Your task to perform on an android device: see sites visited before in the chrome app Image 0: 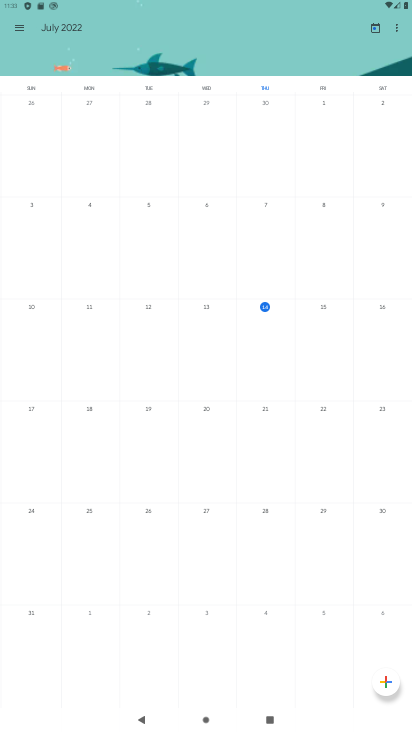
Step 0: press home button
Your task to perform on an android device: see sites visited before in the chrome app Image 1: 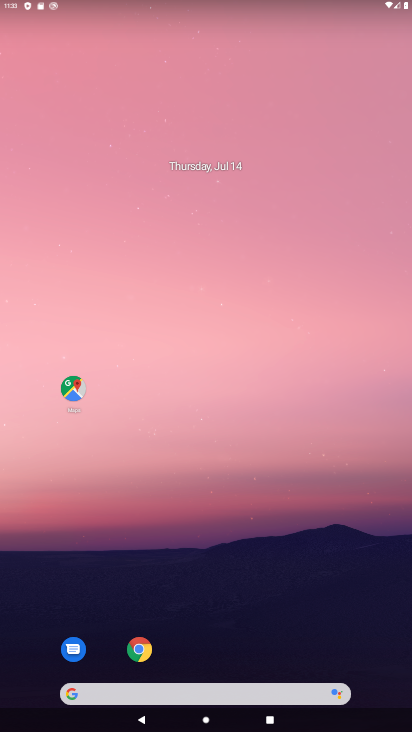
Step 1: click (152, 648)
Your task to perform on an android device: see sites visited before in the chrome app Image 2: 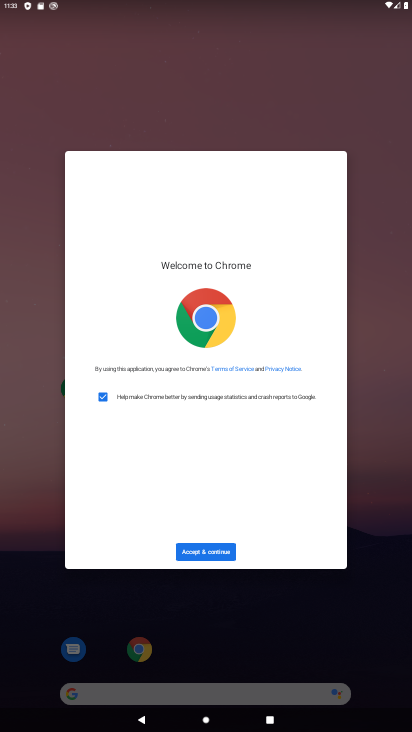
Step 2: click (202, 551)
Your task to perform on an android device: see sites visited before in the chrome app Image 3: 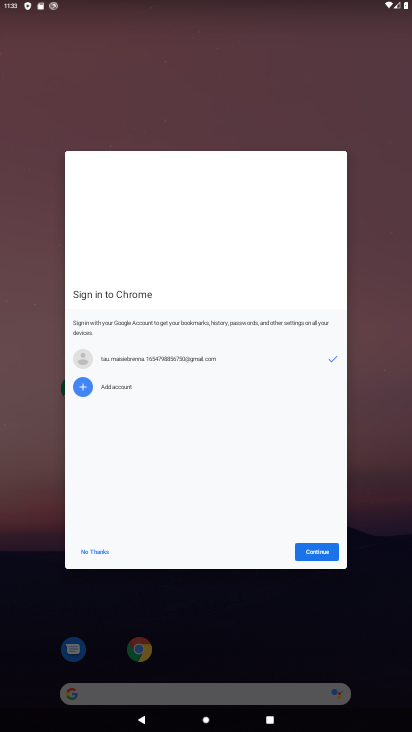
Step 3: click (309, 554)
Your task to perform on an android device: see sites visited before in the chrome app Image 4: 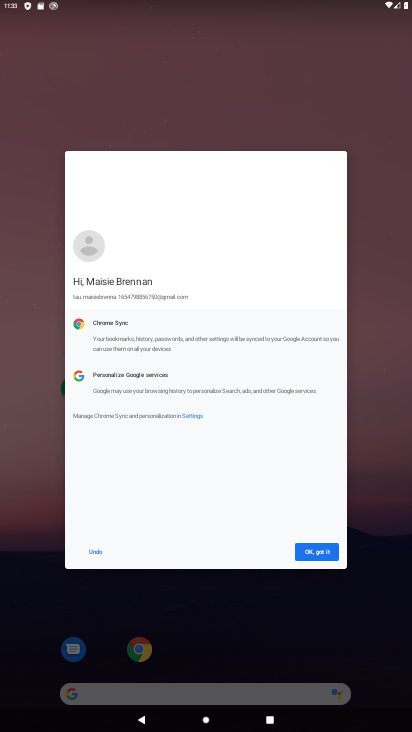
Step 4: click (309, 554)
Your task to perform on an android device: see sites visited before in the chrome app Image 5: 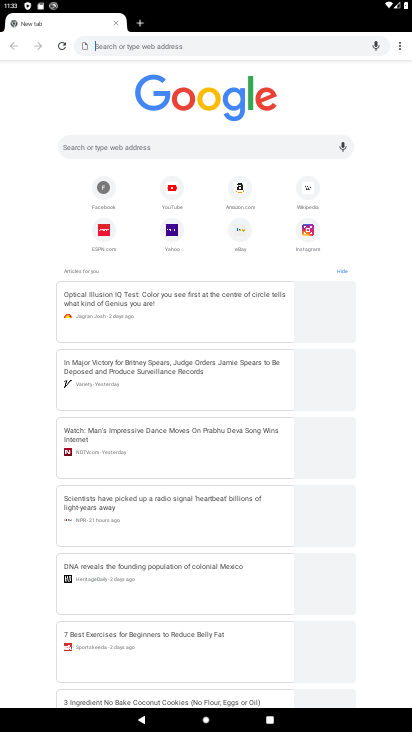
Step 5: click (393, 42)
Your task to perform on an android device: see sites visited before in the chrome app Image 6: 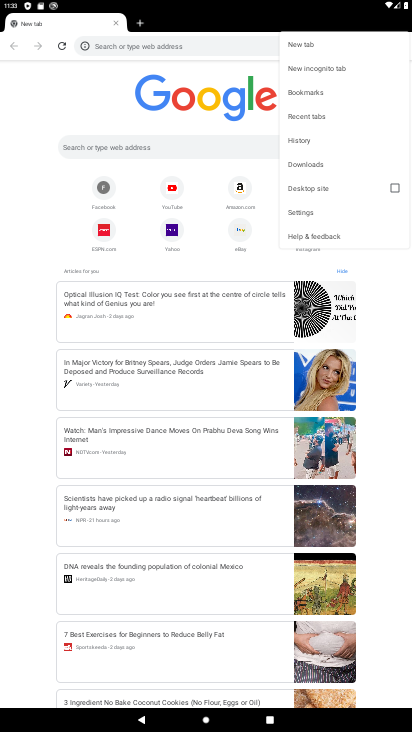
Step 6: click (302, 136)
Your task to perform on an android device: see sites visited before in the chrome app Image 7: 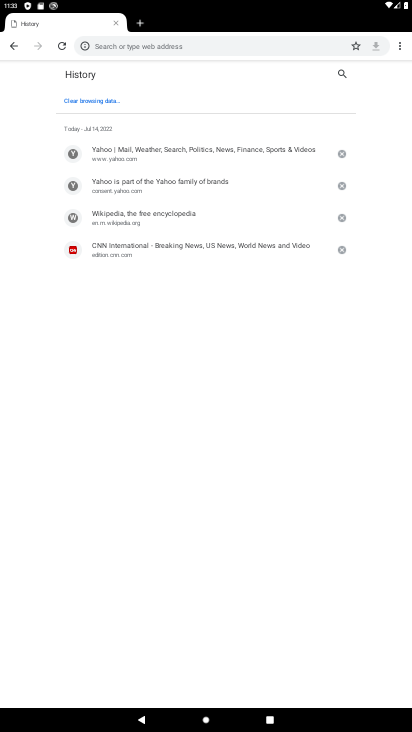
Step 7: task complete